Your task to perform on an android device: Open Wikipedia Image 0: 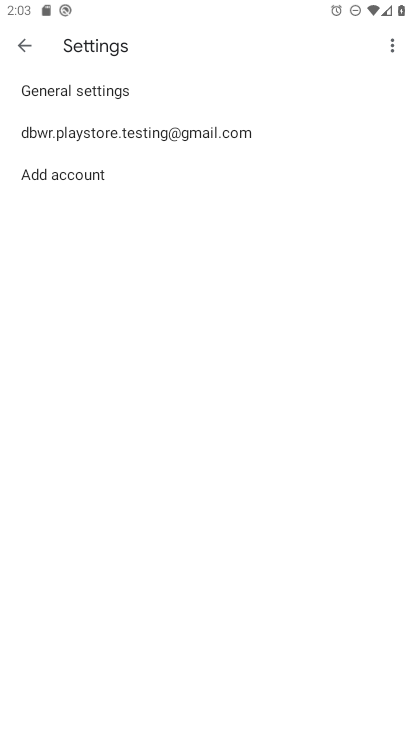
Step 0: press home button
Your task to perform on an android device: Open Wikipedia Image 1: 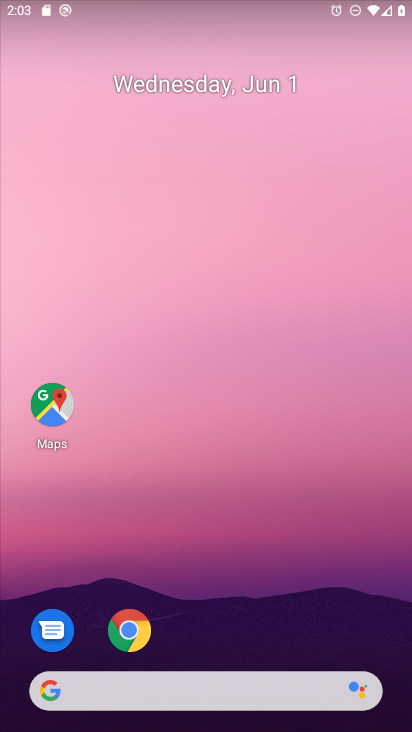
Step 1: drag from (308, 679) to (322, 2)
Your task to perform on an android device: Open Wikipedia Image 2: 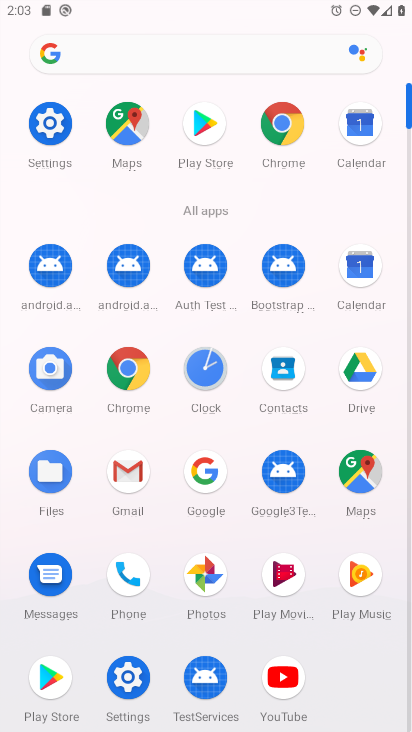
Step 2: click (130, 378)
Your task to perform on an android device: Open Wikipedia Image 3: 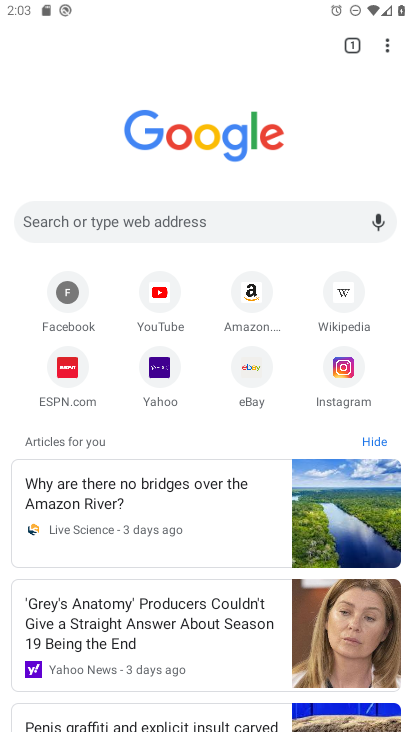
Step 3: click (350, 295)
Your task to perform on an android device: Open Wikipedia Image 4: 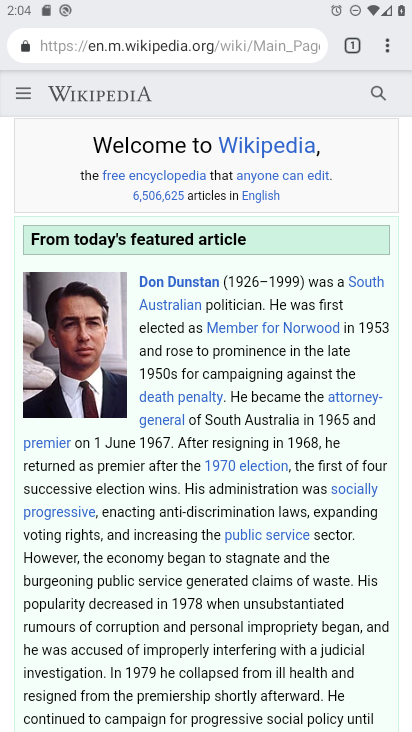
Step 4: task complete